Your task to perform on an android device: find which apps use the phone's location Image 0: 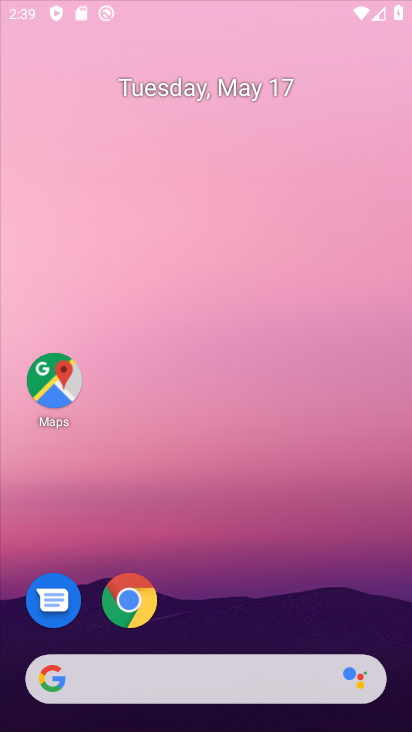
Step 0: click (268, 178)
Your task to perform on an android device: find which apps use the phone's location Image 1: 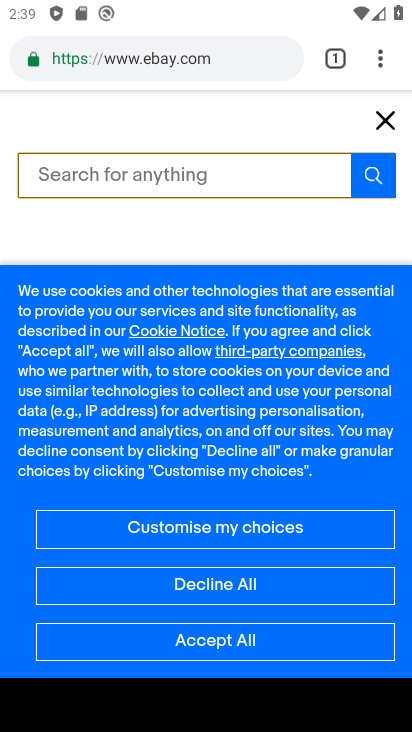
Step 1: press home button
Your task to perform on an android device: find which apps use the phone's location Image 2: 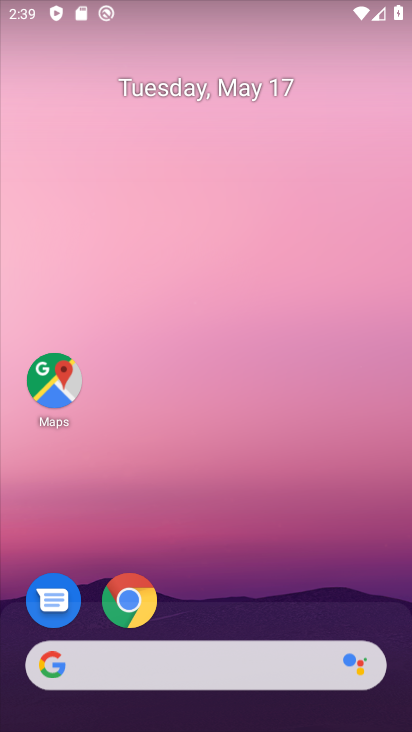
Step 2: drag from (260, 549) to (250, 156)
Your task to perform on an android device: find which apps use the phone's location Image 3: 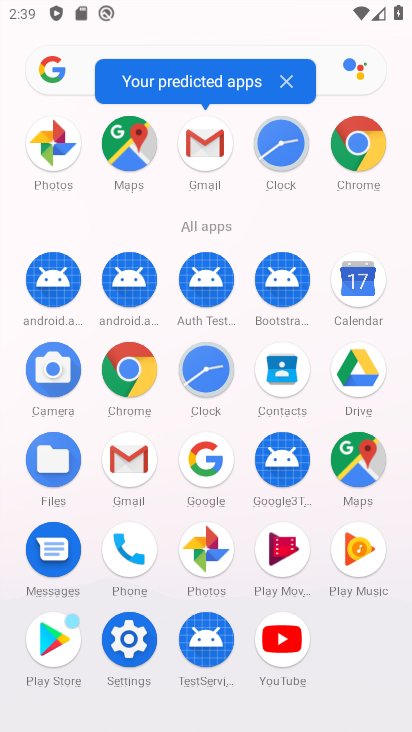
Step 3: click (133, 644)
Your task to perform on an android device: find which apps use the phone's location Image 4: 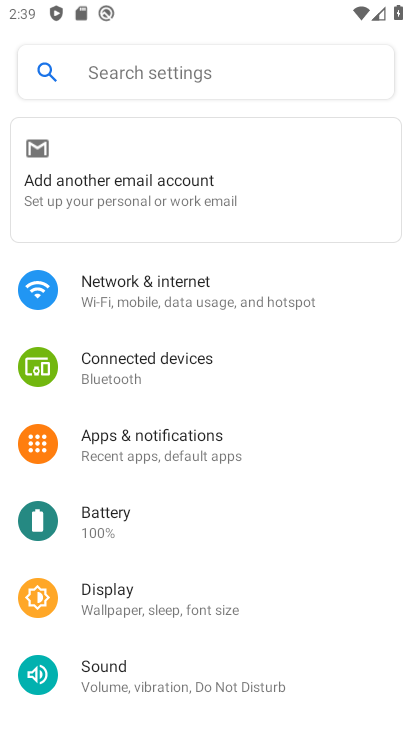
Step 4: drag from (215, 563) to (261, 256)
Your task to perform on an android device: find which apps use the phone's location Image 5: 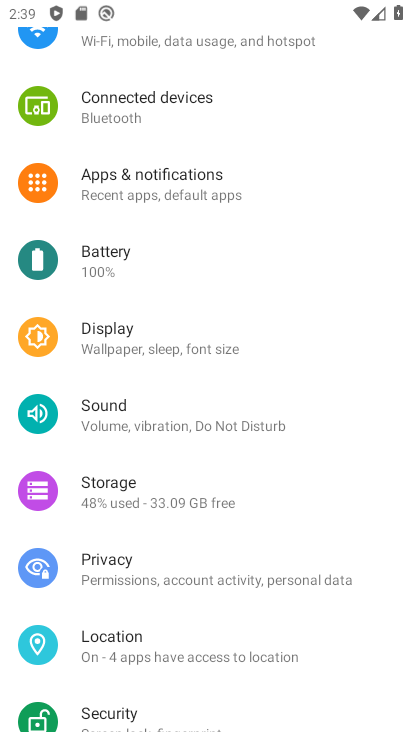
Step 5: click (231, 650)
Your task to perform on an android device: find which apps use the phone's location Image 6: 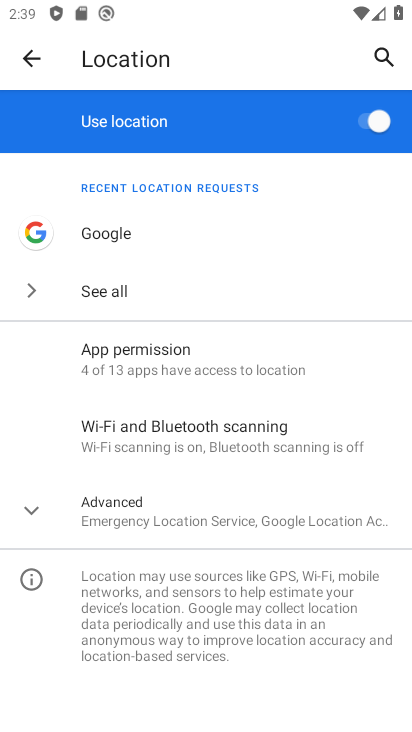
Step 6: click (147, 235)
Your task to perform on an android device: find which apps use the phone's location Image 7: 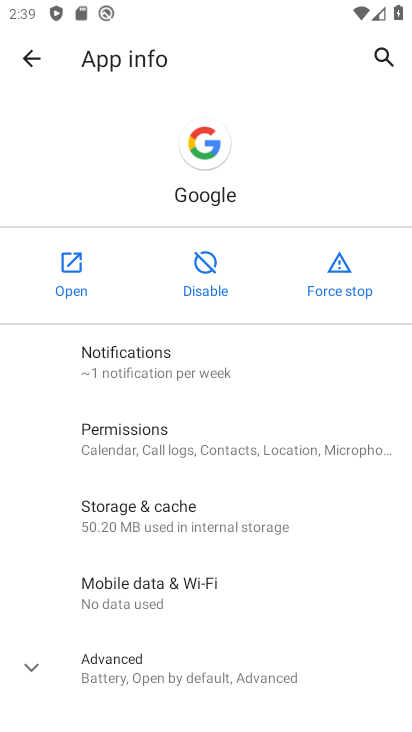
Step 7: click (200, 453)
Your task to perform on an android device: find which apps use the phone's location Image 8: 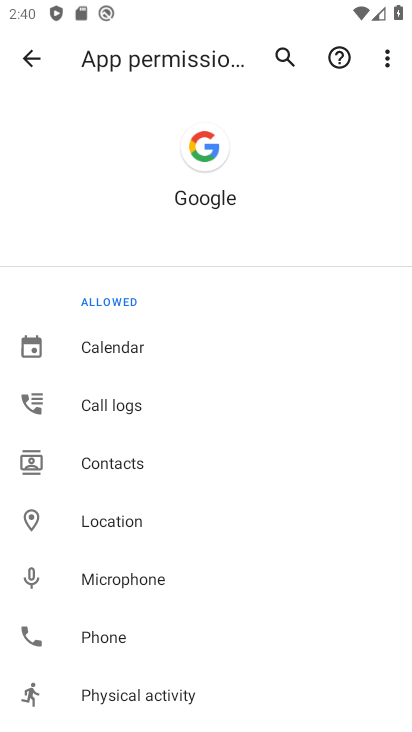
Step 8: click (124, 525)
Your task to perform on an android device: find which apps use the phone's location Image 9: 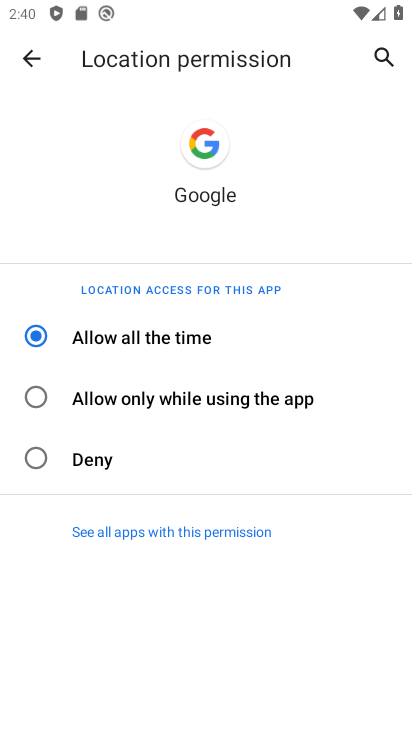
Step 9: task complete